Your task to perform on an android device: Go to ESPN.com Image 0: 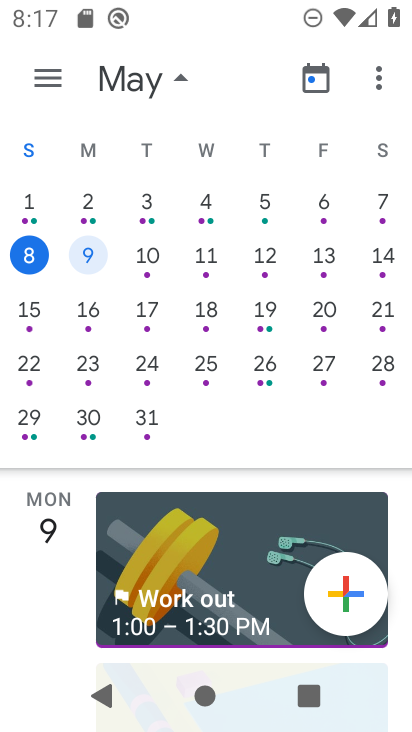
Step 0: press home button
Your task to perform on an android device: Go to ESPN.com Image 1: 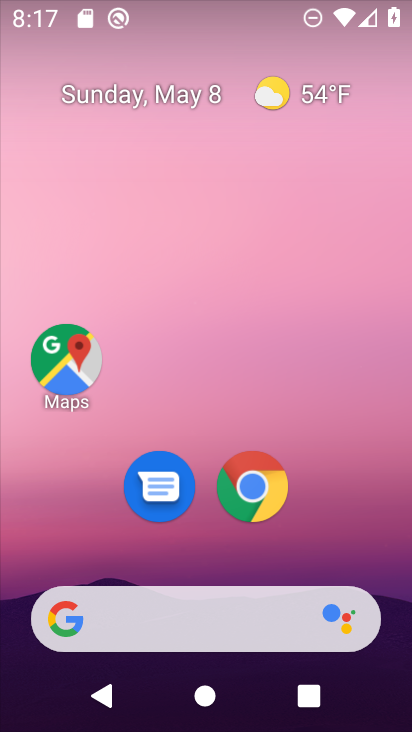
Step 1: click (244, 483)
Your task to perform on an android device: Go to ESPN.com Image 2: 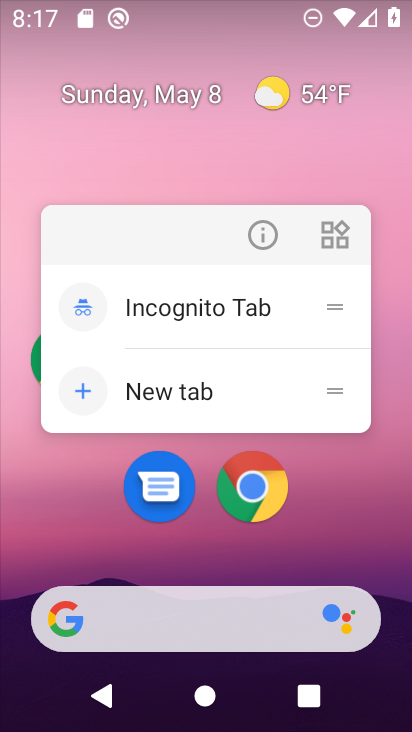
Step 2: click (267, 247)
Your task to perform on an android device: Go to ESPN.com Image 3: 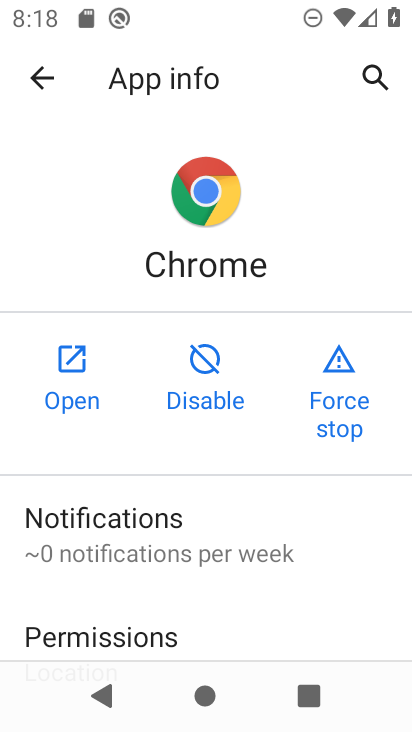
Step 3: click (44, 398)
Your task to perform on an android device: Go to ESPN.com Image 4: 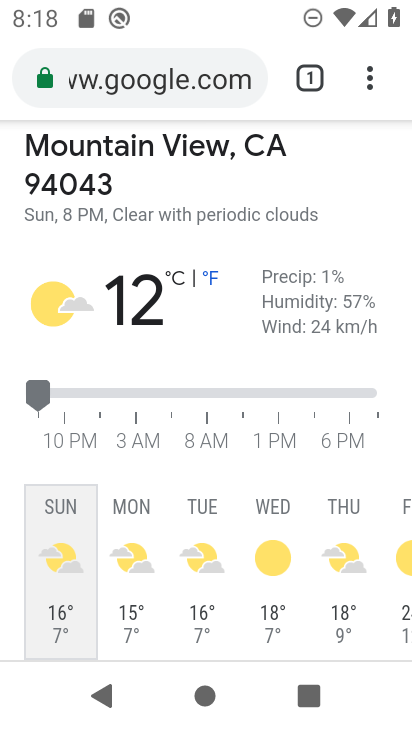
Step 4: click (143, 76)
Your task to perform on an android device: Go to ESPN.com Image 5: 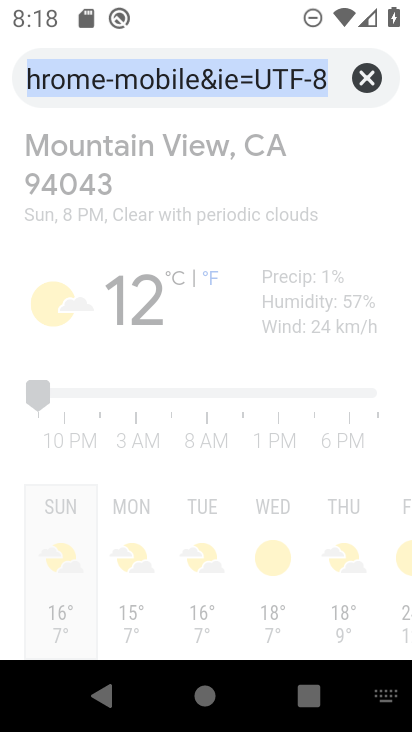
Step 5: type "ESPN.com"
Your task to perform on an android device: Go to ESPN.com Image 6: 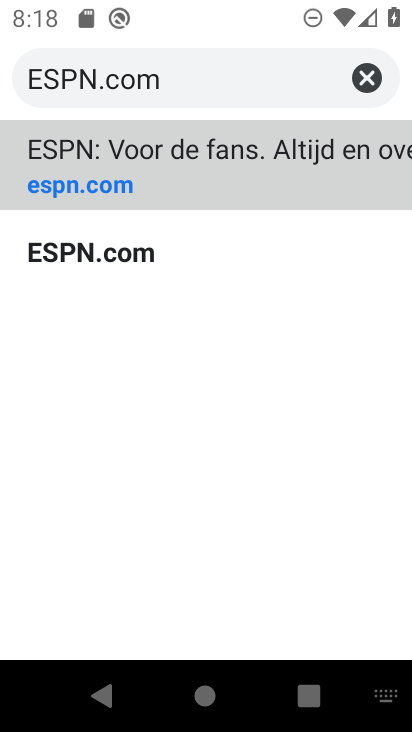
Step 6: click (103, 250)
Your task to perform on an android device: Go to ESPN.com Image 7: 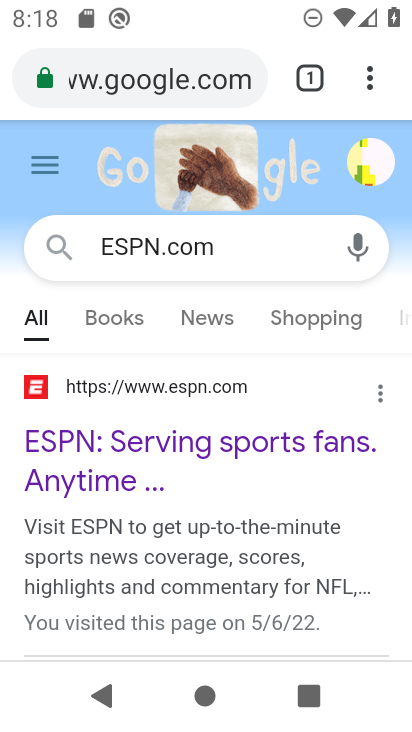
Step 7: task complete